Your task to perform on an android device: open a new tab in the chrome app Image 0: 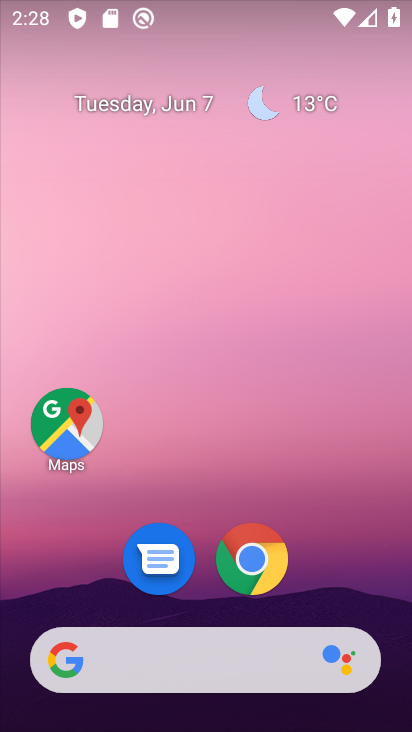
Step 0: click (253, 557)
Your task to perform on an android device: open a new tab in the chrome app Image 1: 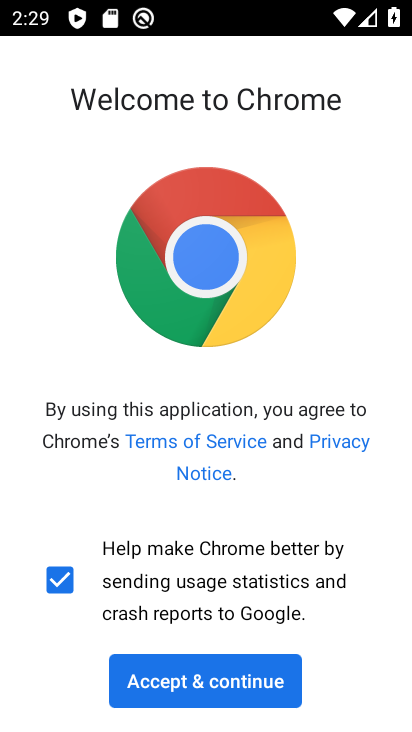
Step 1: click (202, 678)
Your task to perform on an android device: open a new tab in the chrome app Image 2: 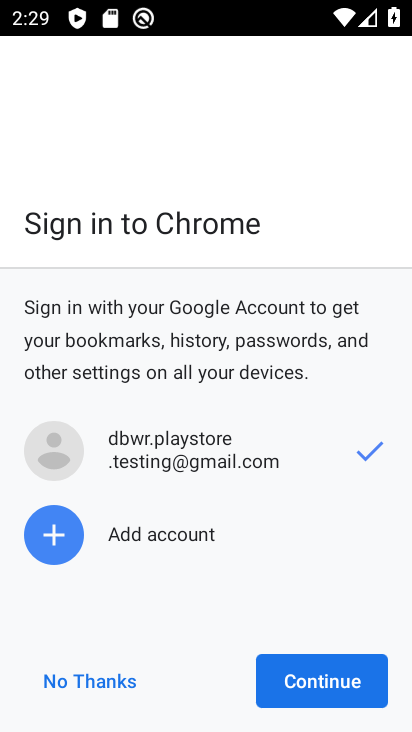
Step 2: click (296, 680)
Your task to perform on an android device: open a new tab in the chrome app Image 3: 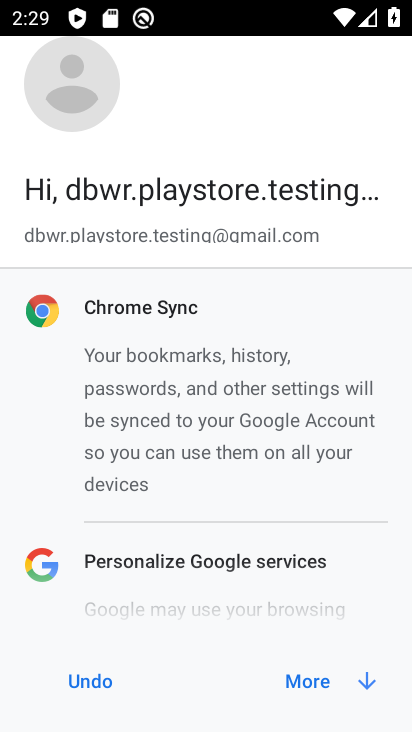
Step 3: click (302, 683)
Your task to perform on an android device: open a new tab in the chrome app Image 4: 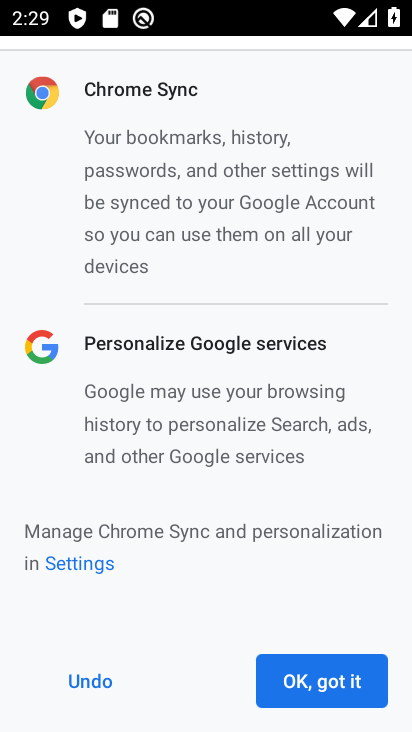
Step 4: click (302, 683)
Your task to perform on an android device: open a new tab in the chrome app Image 5: 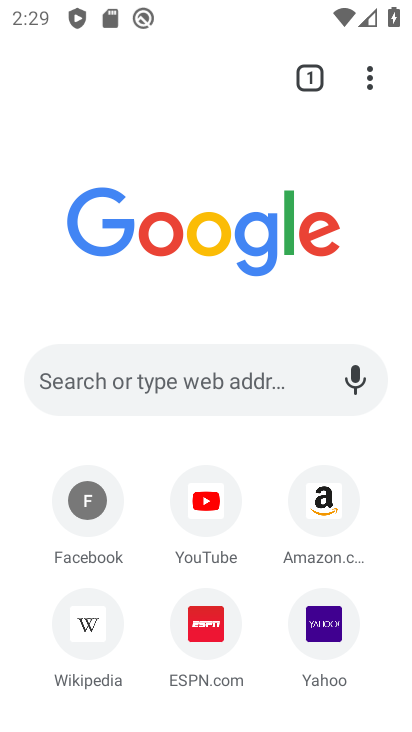
Step 5: click (369, 79)
Your task to perform on an android device: open a new tab in the chrome app Image 6: 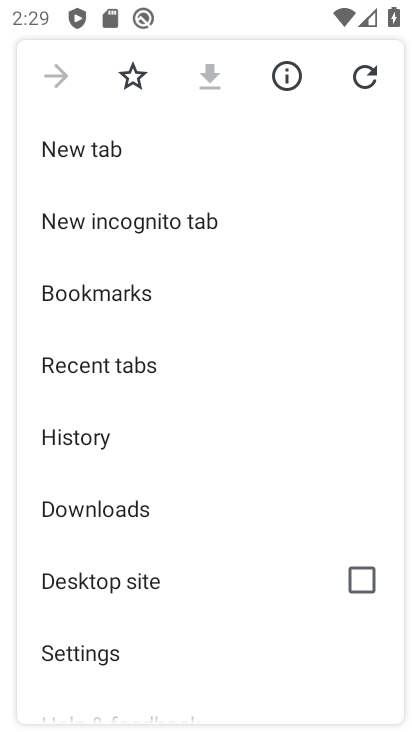
Step 6: click (114, 157)
Your task to perform on an android device: open a new tab in the chrome app Image 7: 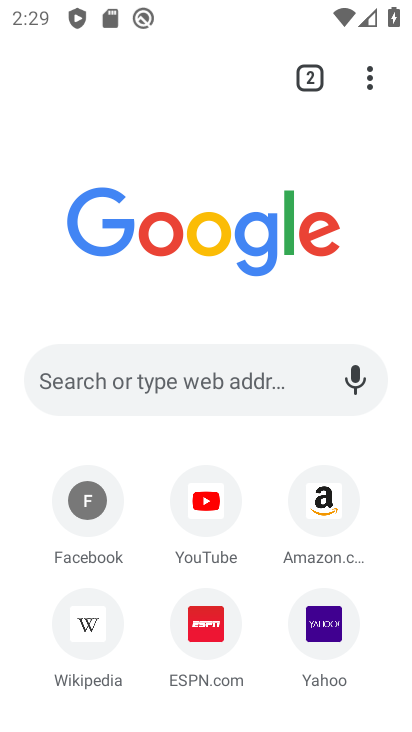
Step 7: task complete